Your task to perform on an android device: remove spam from my inbox in the gmail app Image 0: 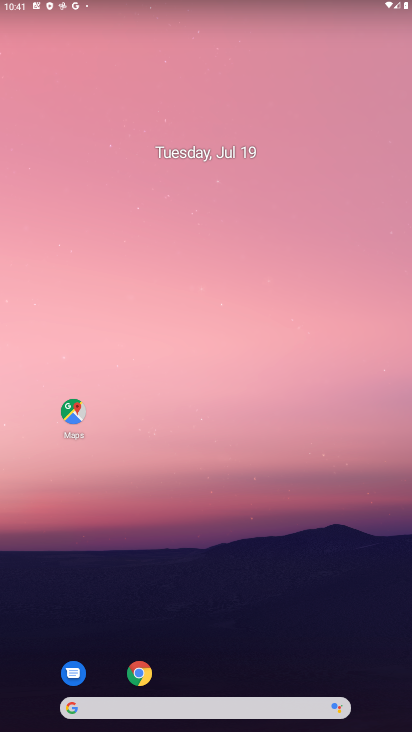
Step 0: drag from (304, 674) to (318, 207)
Your task to perform on an android device: remove spam from my inbox in the gmail app Image 1: 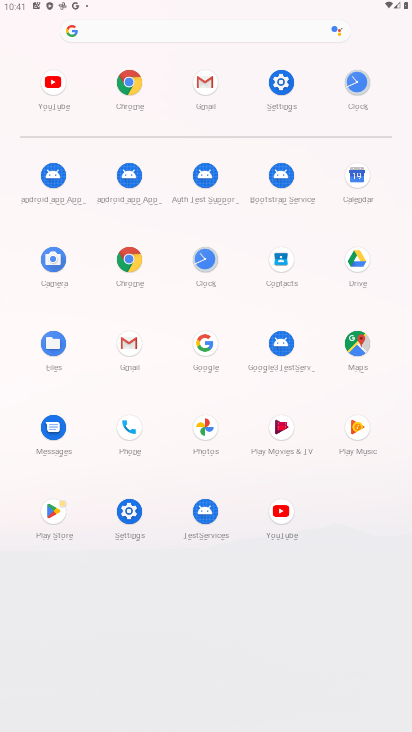
Step 1: click (193, 96)
Your task to perform on an android device: remove spam from my inbox in the gmail app Image 2: 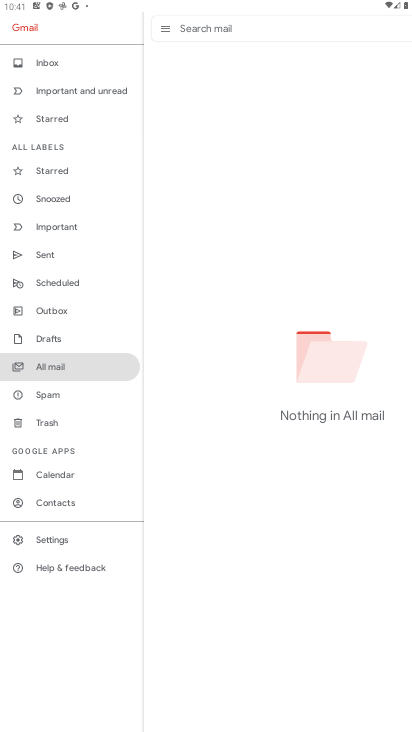
Step 2: task complete